Your task to perform on an android device: open app "PUBG MOBILE" Image 0: 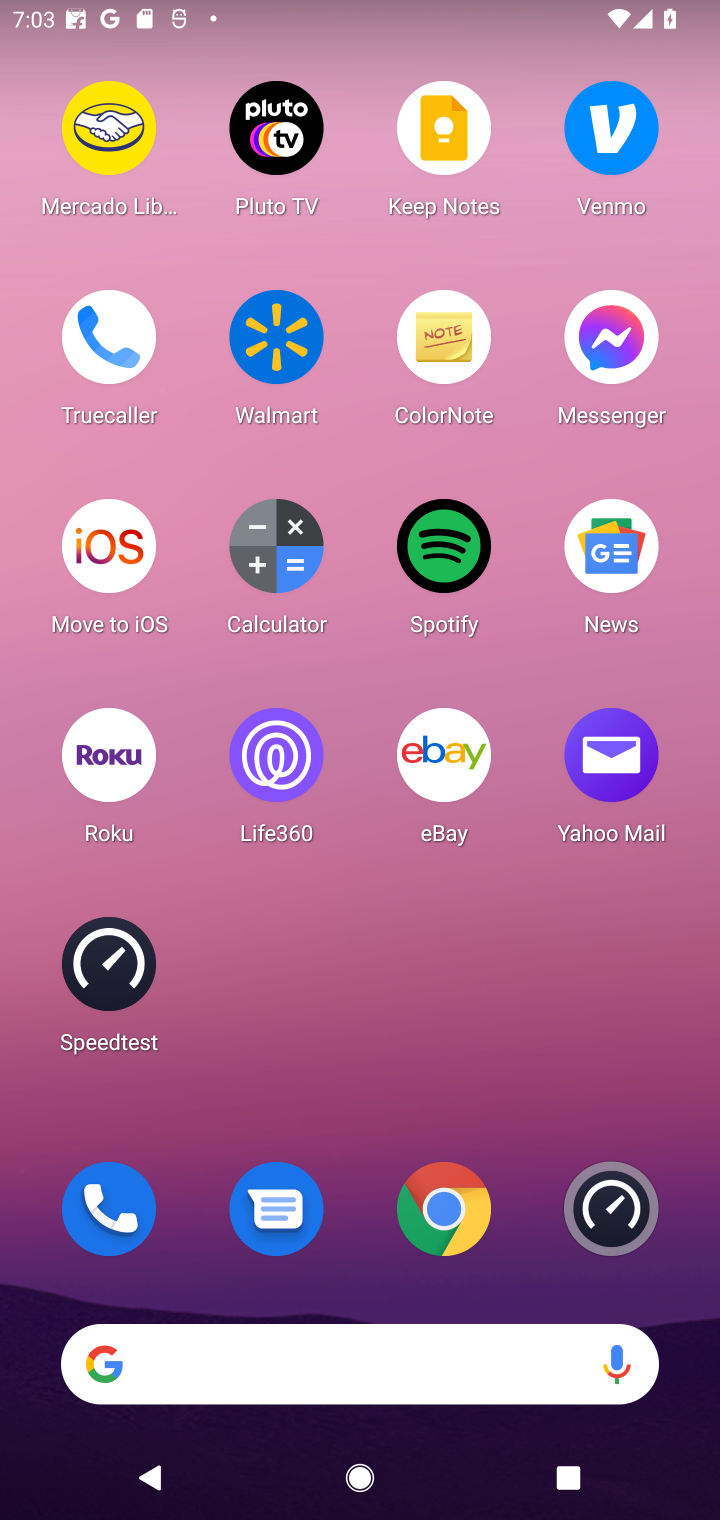
Step 0: drag from (327, 1287) to (318, 287)
Your task to perform on an android device: open app "PUBG MOBILE" Image 1: 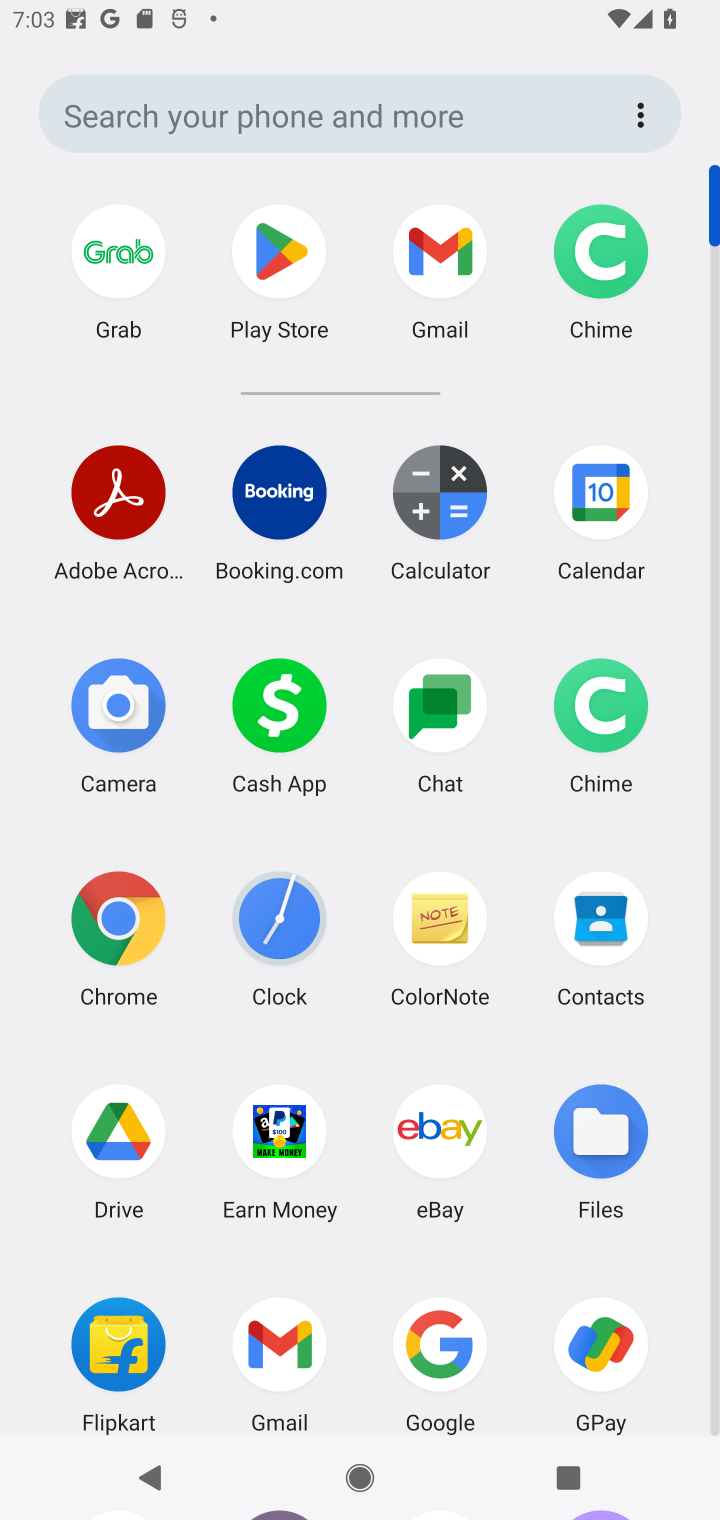
Step 1: click (297, 263)
Your task to perform on an android device: open app "PUBG MOBILE" Image 2: 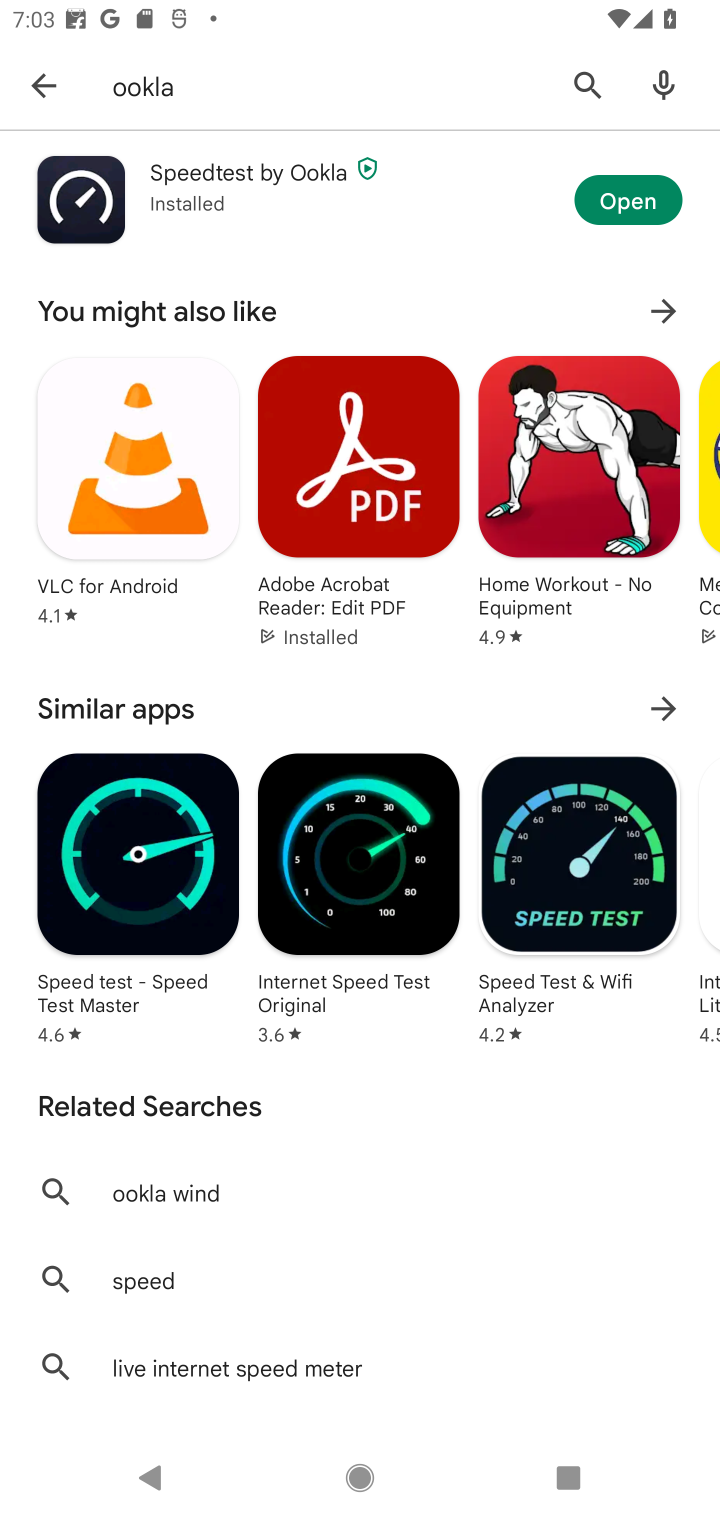
Step 2: click (603, 97)
Your task to perform on an android device: open app "PUBG MOBILE" Image 3: 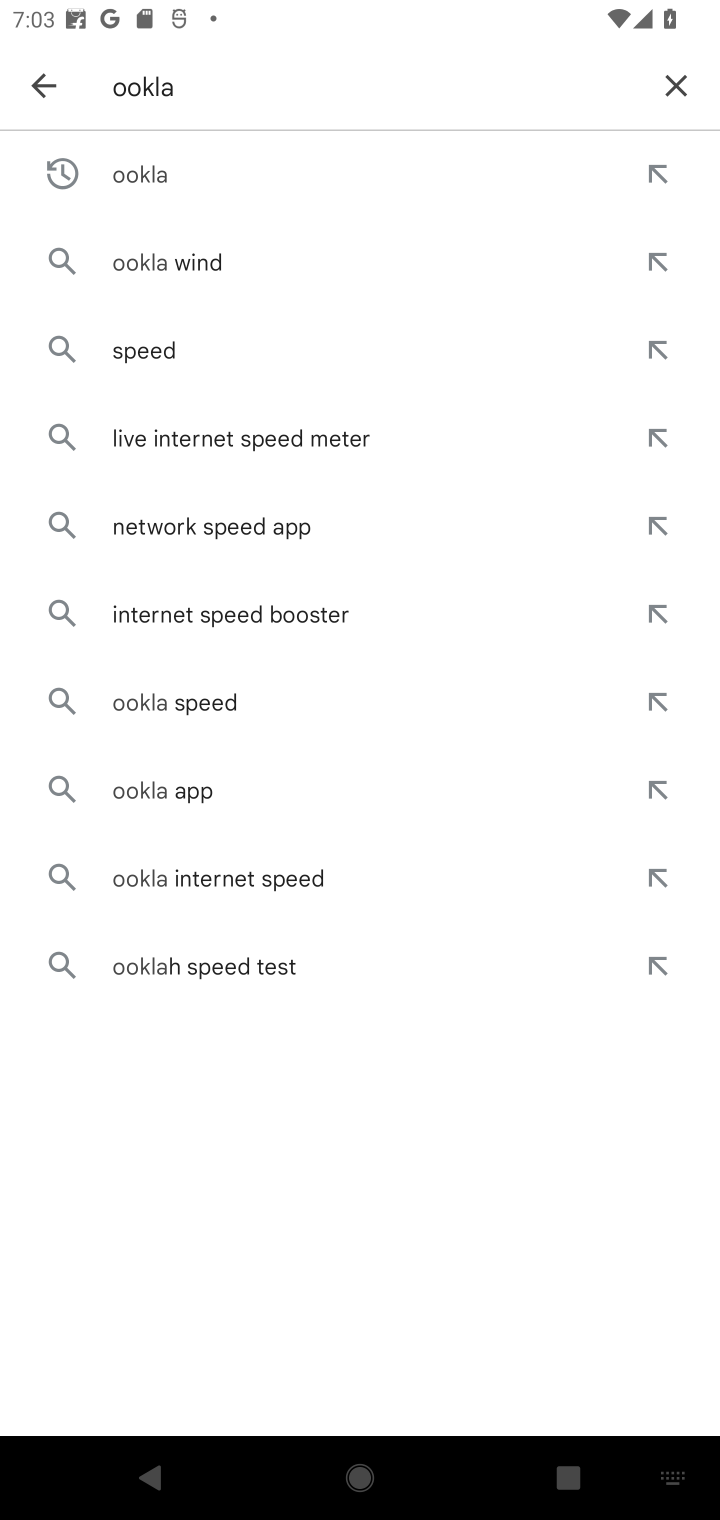
Step 3: click (674, 85)
Your task to perform on an android device: open app "PUBG MOBILE" Image 4: 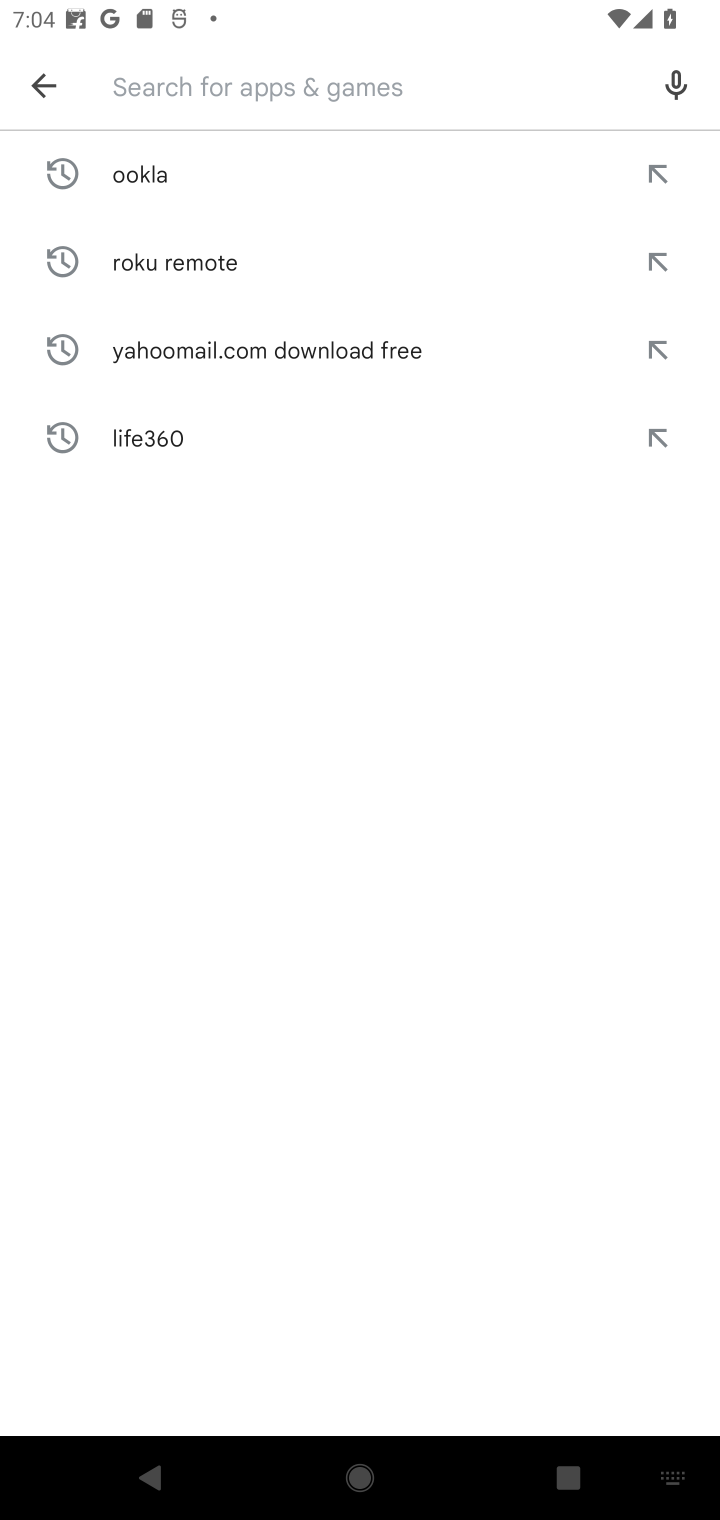
Step 4: type "pubg"
Your task to perform on an android device: open app "PUBG MOBILE" Image 5: 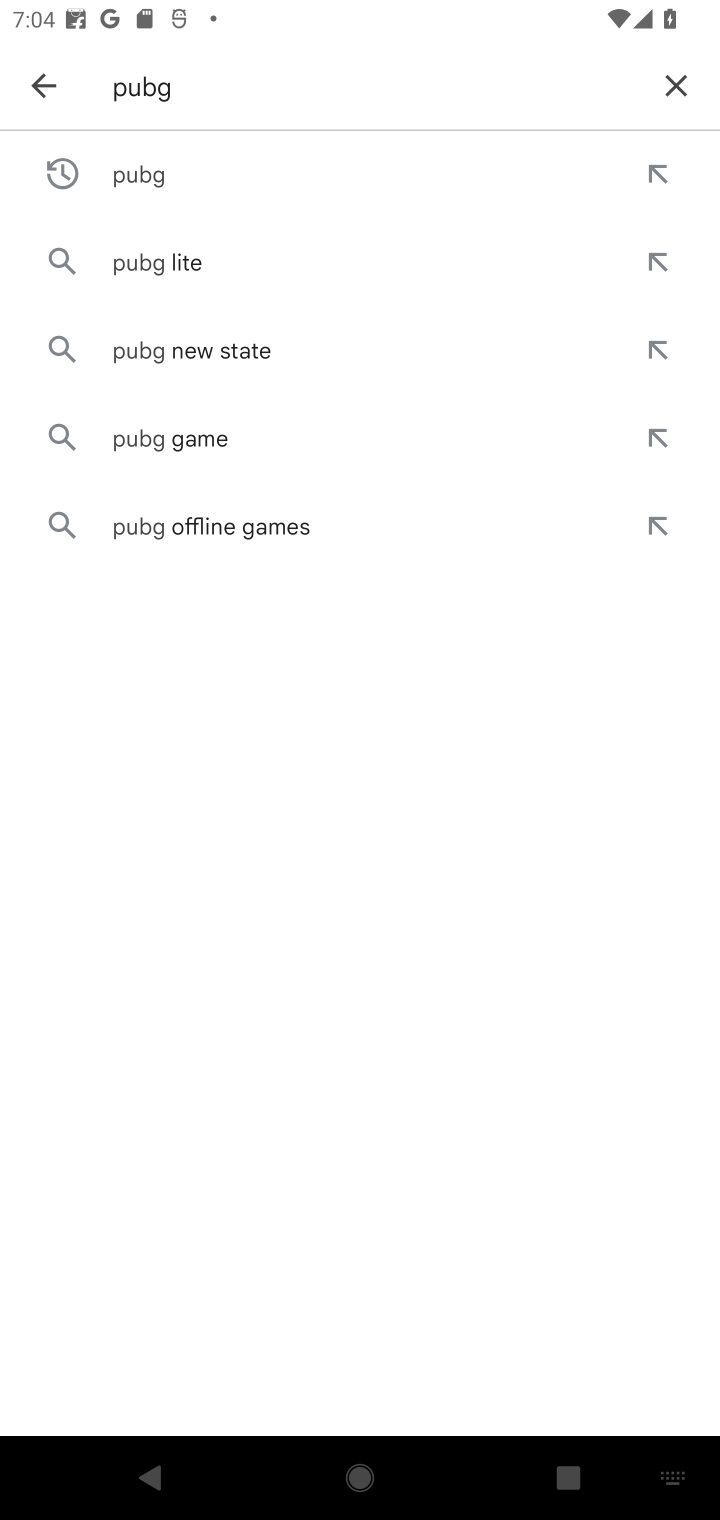
Step 5: click (556, 167)
Your task to perform on an android device: open app "PUBG MOBILE" Image 6: 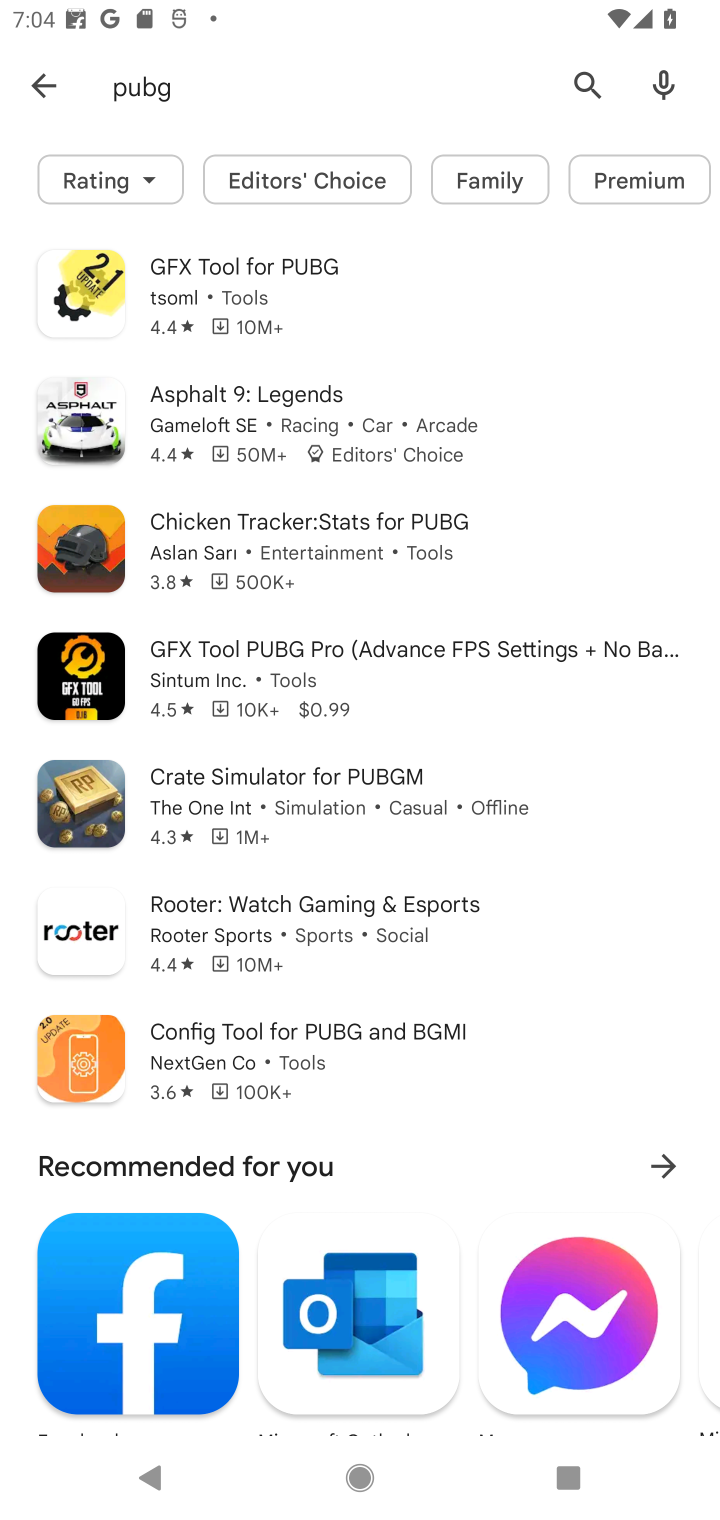
Step 6: task complete